Your task to perform on an android device: What is the recent news? Image 0: 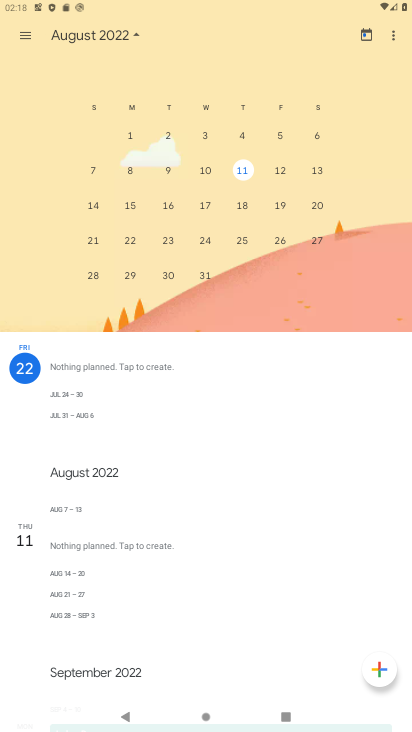
Step 0: press home button
Your task to perform on an android device: What is the recent news? Image 1: 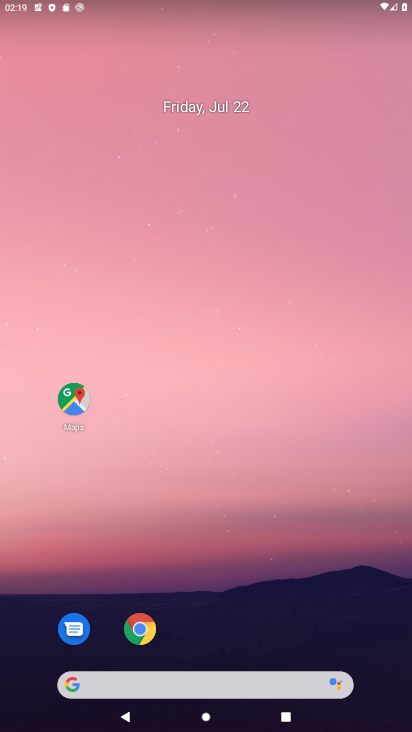
Step 1: click (193, 684)
Your task to perform on an android device: What is the recent news? Image 2: 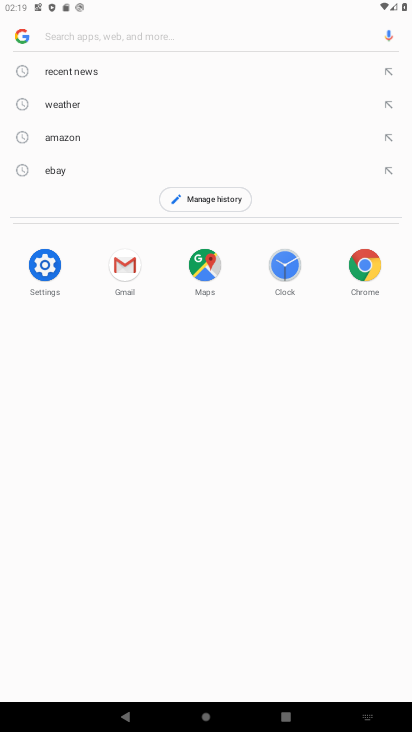
Step 2: click (98, 74)
Your task to perform on an android device: What is the recent news? Image 3: 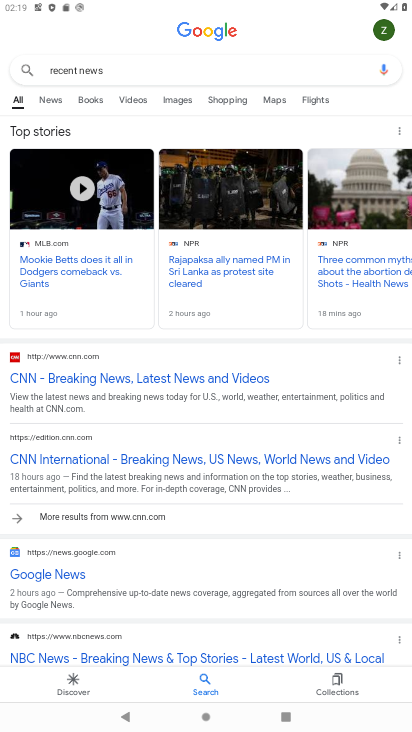
Step 3: task complete